Your task to perform on an android device: set default search engine in the chrome app Image 0: 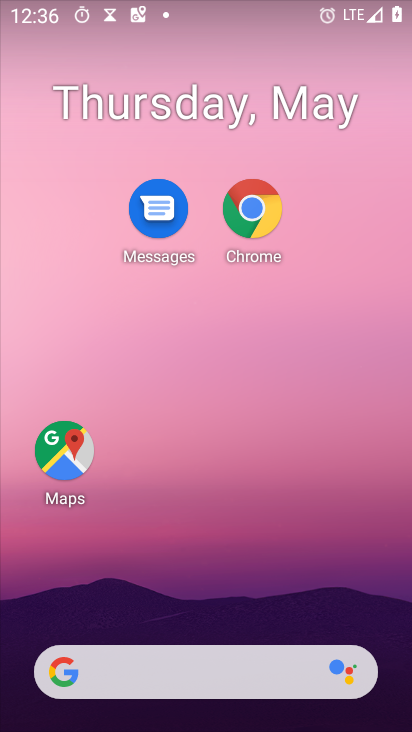
Step 0: drag from (229, 622) to (221, 59)
Your task to perform on an android device: set default search engine in the chrome app Image 1: 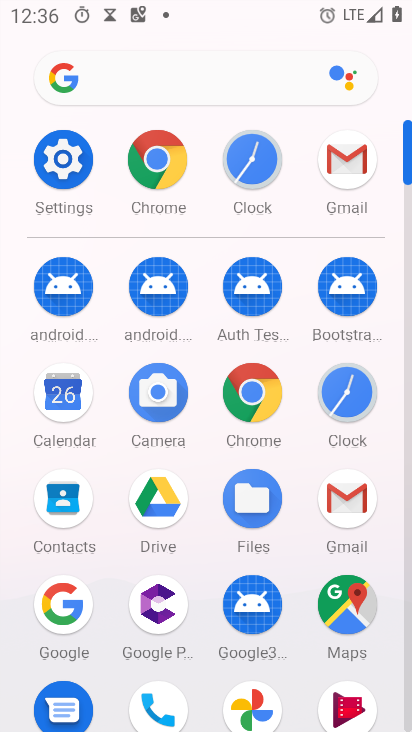
Step 1: click (153, 157)
Your task to perform on an android device: set default search engine in the chrome app Image 2: 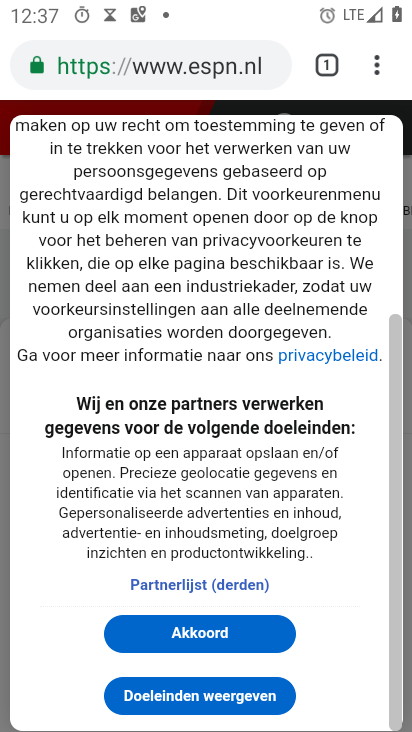
Step 2: click (380, 66)
Your task to perform on an android device: set default search engine in the chrome app Image 3: 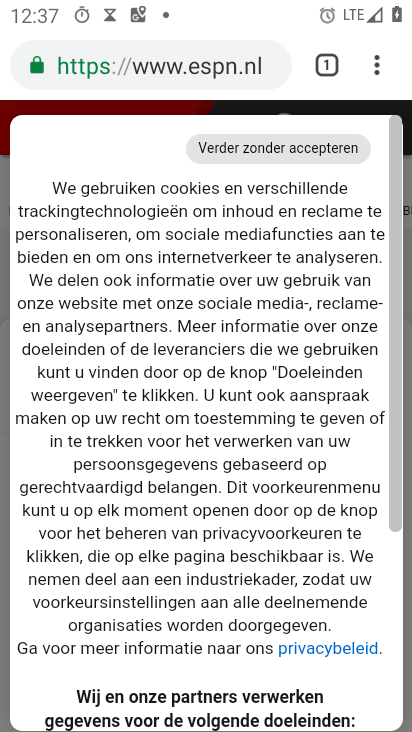
Step 3: click (378, 65)
Your task to perform on an android device: set default search engine in the chrome app Image 4: 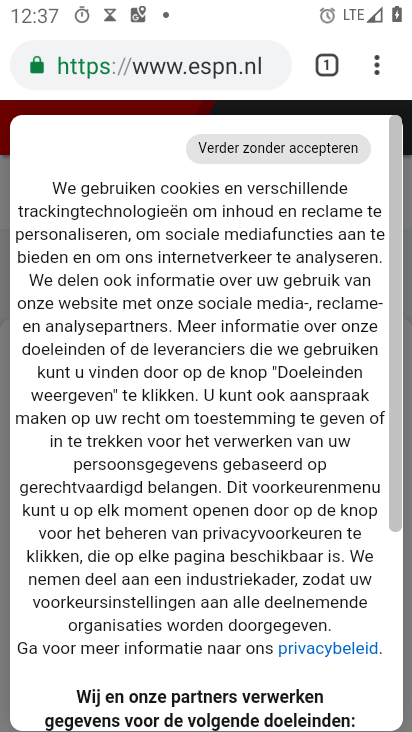
Step 4: click (378, 65)
Your task to perform on an android device: set default search engine in the chrome app Image 5: 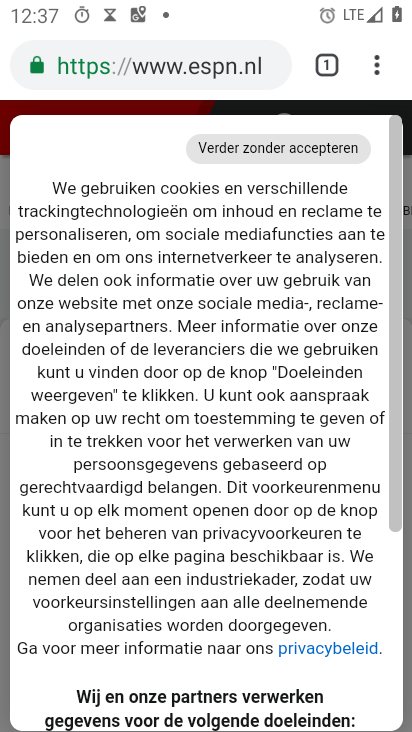
Step 5: click (376, 73)
Your task to perform on an android device: set default search engine in the chrome app Image 6: 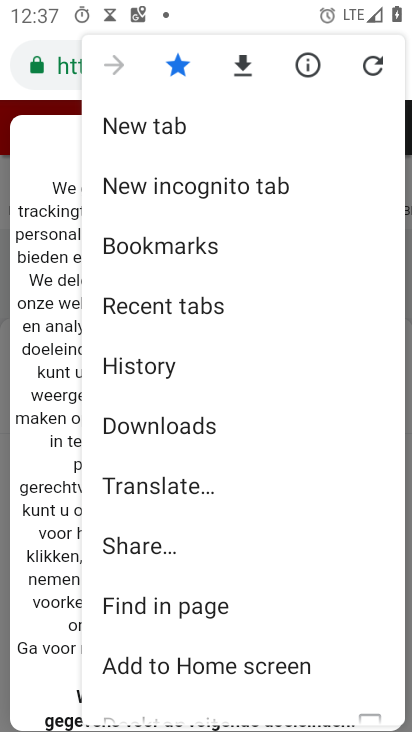
Step 6: drag from (164, 616) to (164, 250)
Your task to perform on an android device: set default search engine in the chrome app Image 7: 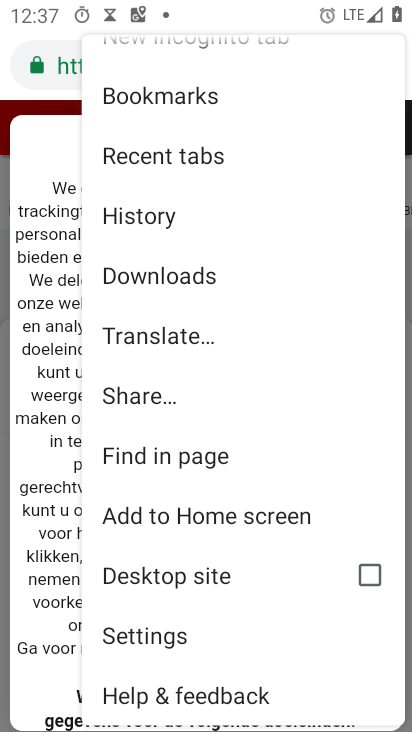
Step 7: click (141, 647)
Your task to perform on an android device: set default search engine in the chrome app Image 8: 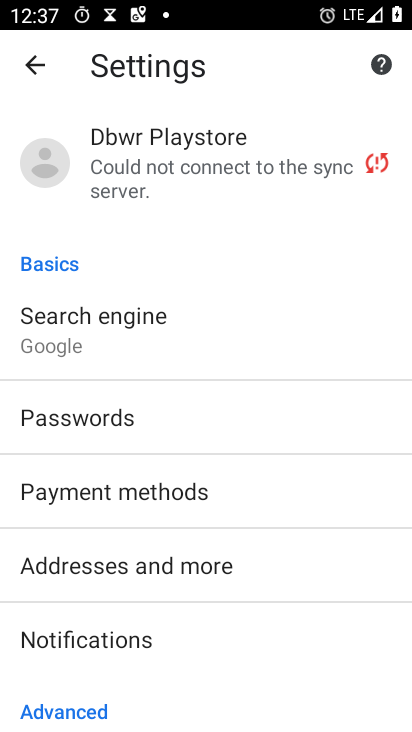
Step 8: drag from (152, 644) to (175, 250)
Your task to perform on an android device: set default search engine in the chrome app Image 9: 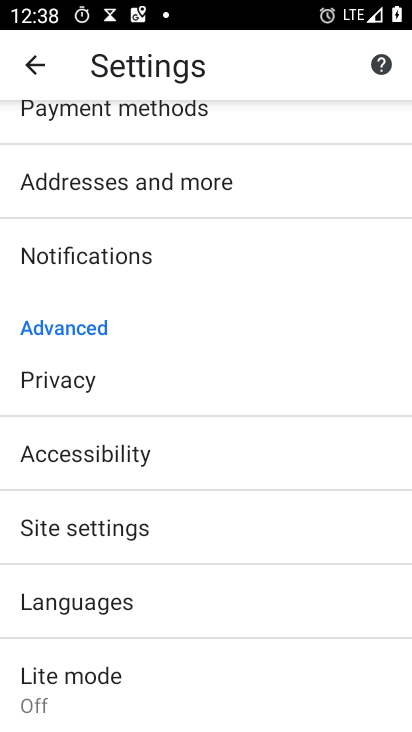
Step 9: drag from (176, 290) to (96, 728)
Your task to perform on an android device: set default search engine in the chrome app Image 10: 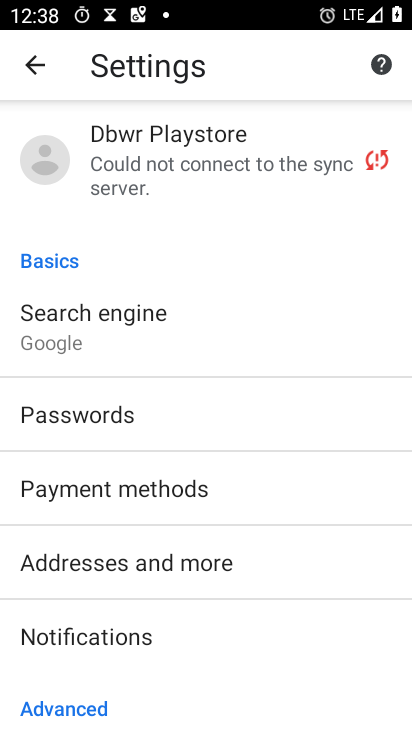
Step 10: click (125, 330)
Your task to perform on an android device: set default search engine in the chrome app Image 11: 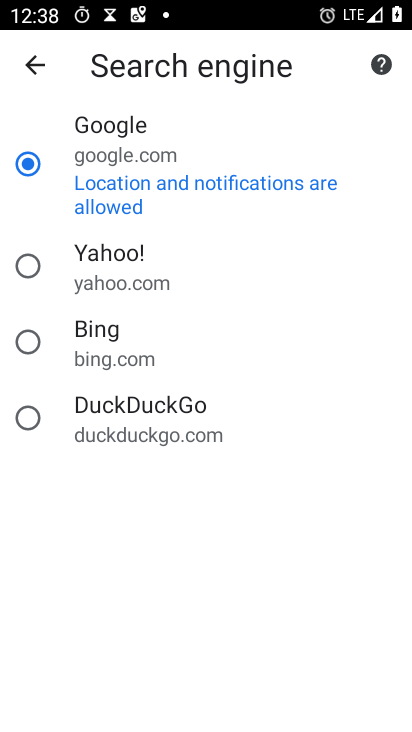
Step 11: click (25, 271)
Your task to perform on an android device: set default search engine in the chrome app Image 12: 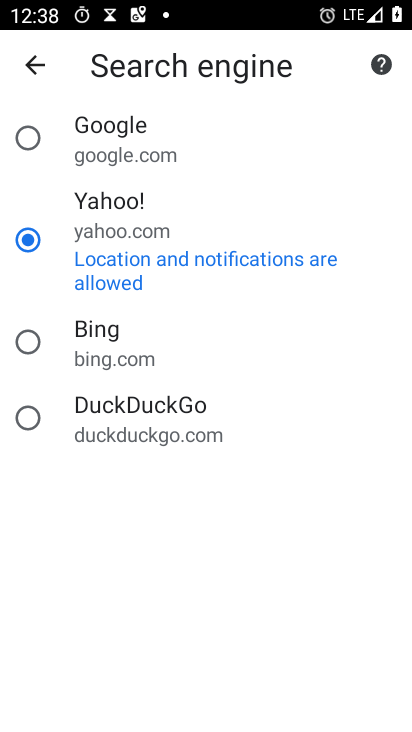
Step 12: task complete